Your task to perform on an android device: Open maps Image 0: 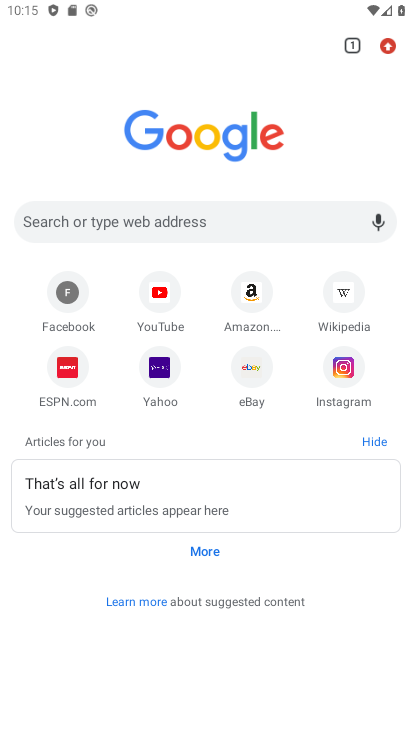
Step 0: press home button
Your task to perform on an android device: Open maps Image 1: 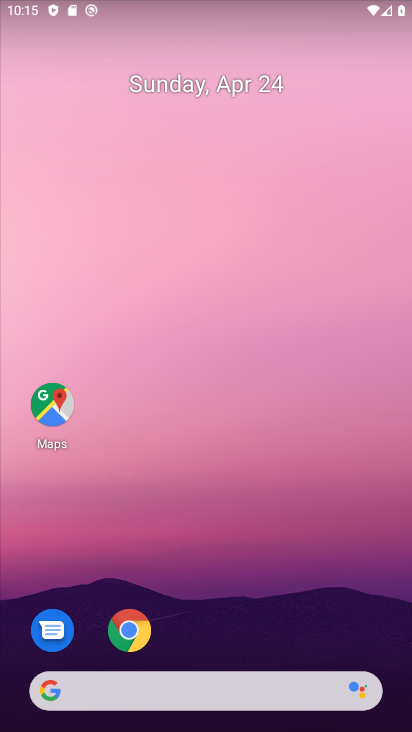
Step 1: click (41, 427)
Your task to perform on an android device: Open maps Image 2: 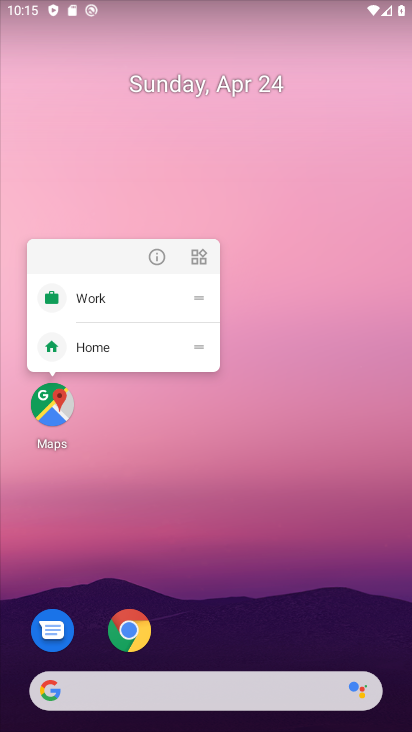
Step 2: click (53, 412)
Your task to perform on an android device: Open maps Image 3: 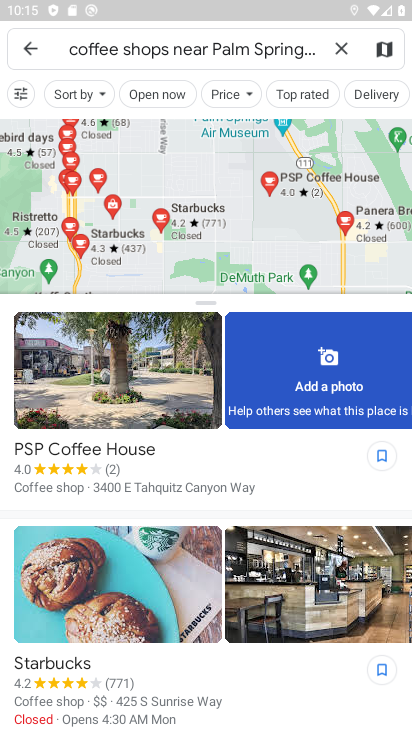
Step 3: task complete